Your task to perform on an android device: Do I have any events today? Image 0: 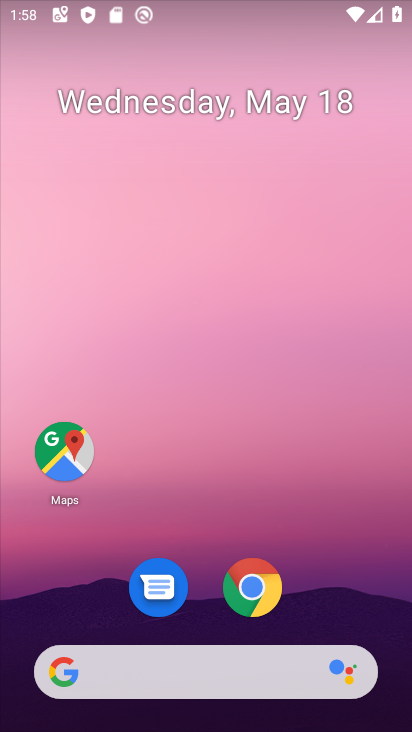
Step 0: drag from (348, 628) to (369, 4)
Your task to perform on an android device: Do I have any events today? Image 1: 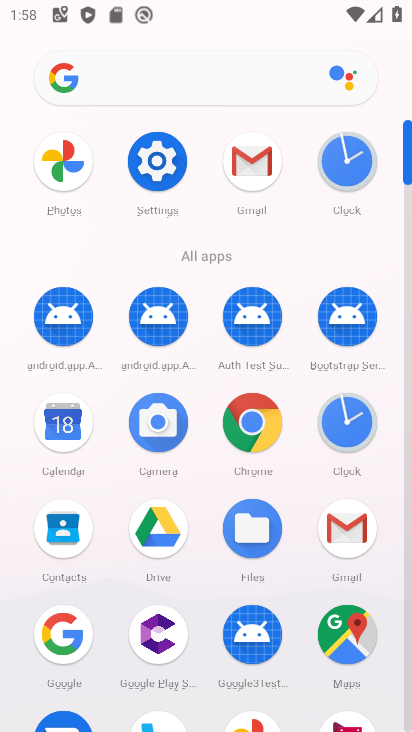
Step 1: click (67, 423)
Your task to perform on an android device: Do I have any events today? Image 2: 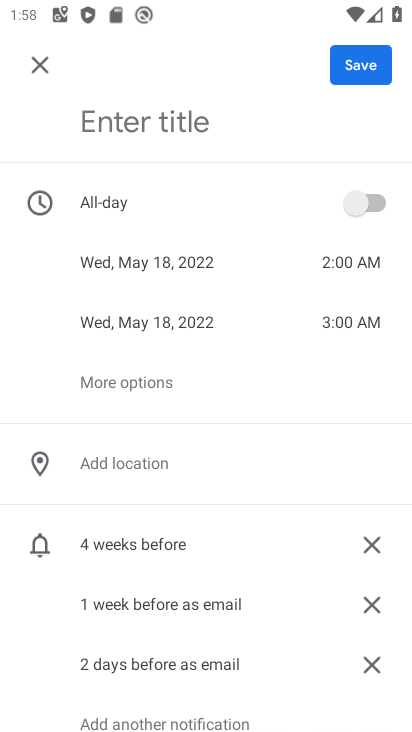
Step 2: click (43, 61)
Your task to perform on an android device: Do I have any events today? Image 3: 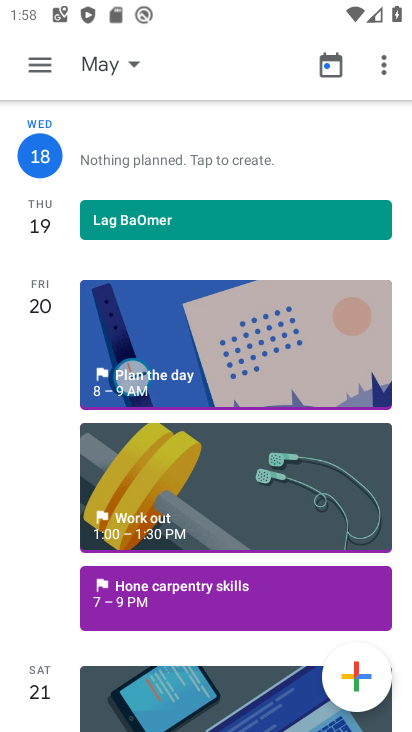
Step 3: click (132, 163)
Your task to perform on an android device: Do I have any events today? Image 4: 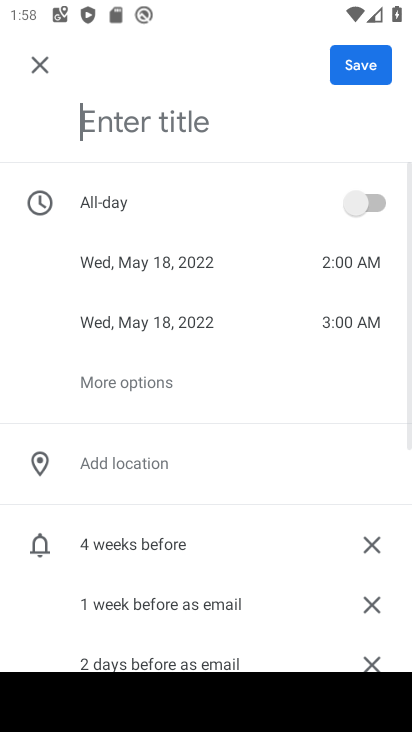
Step 4: task complete